Your task to perform on an android device: Open calendar and show me the second week of next month Image 0: 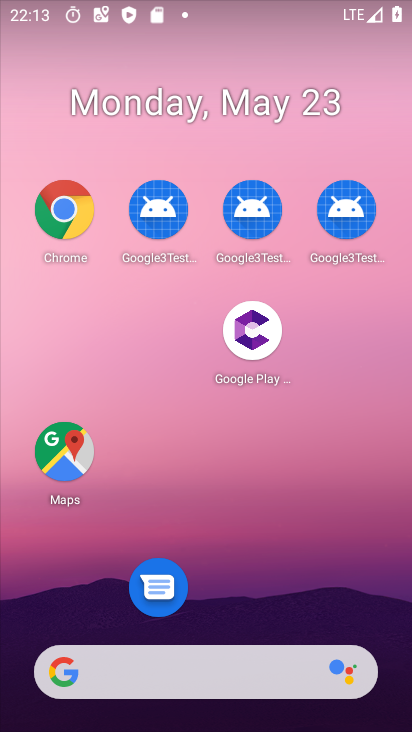
Step 0: click (243, 98)
Your task to perform on an android device: Open calendar and show me the second week of next month Image 1: 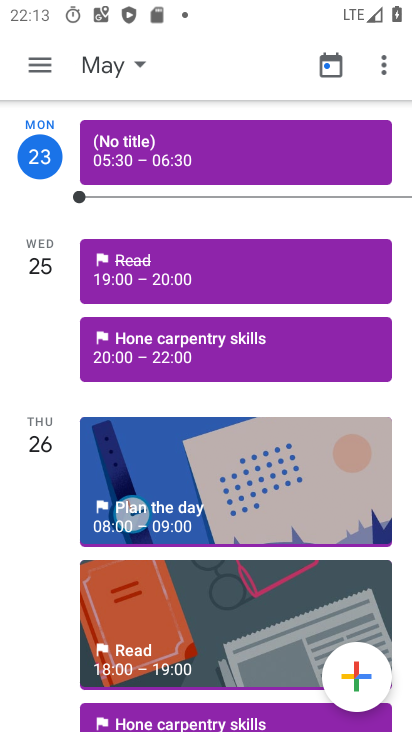
Step 1: click (35, 69)
Your task to perform on an android device: Open calendar and show me the second week of next month Image 2: 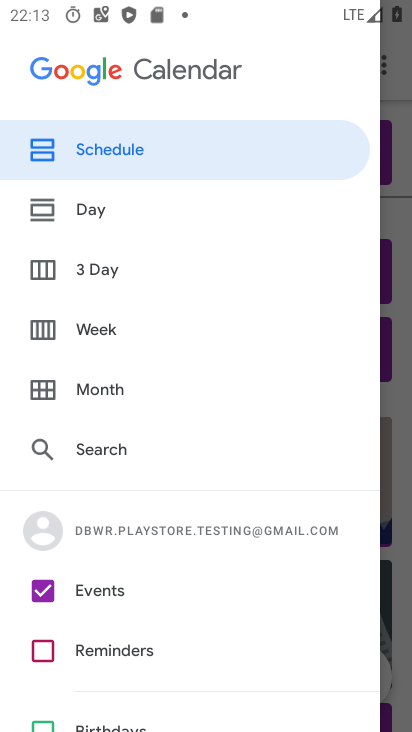
Step 2: click (116, 328)
Your task to perform on an android device: Open calendar and show me the second week of next month Image 3: 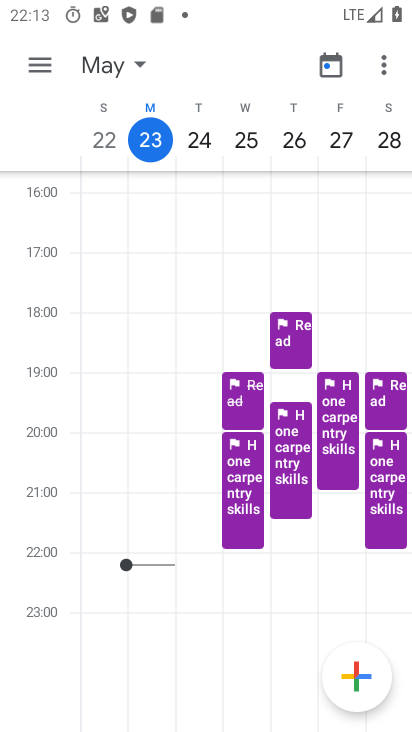
Step 3: click (137, 62)
Your task to perform on an android device: Open calendar and show me the second week of next month Image 4: 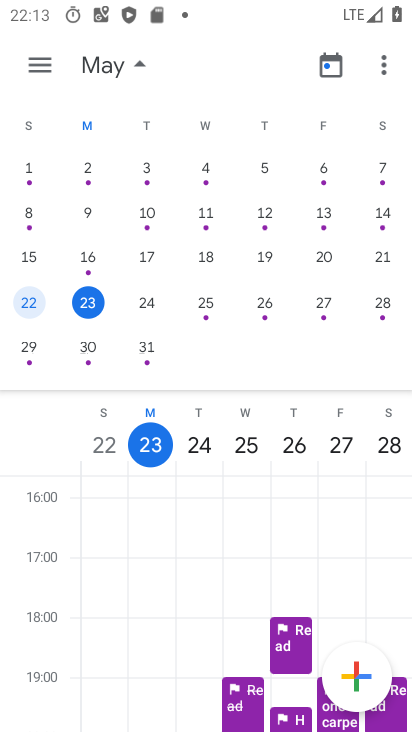
Step 4: drag from (380, 331) to (16, 321)
Your task to perform on an android device: Open calendar and show me the second week of next month Image 5: 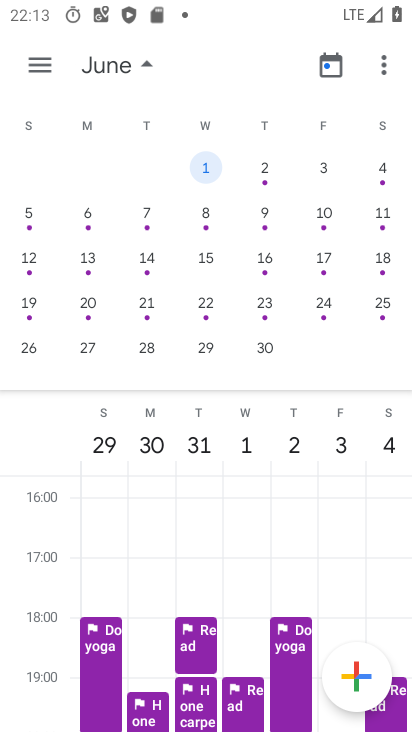
Step 5: click (261, 217)
Your task to perform on an android device: Open calendar and show me the second week of next month Image 6: 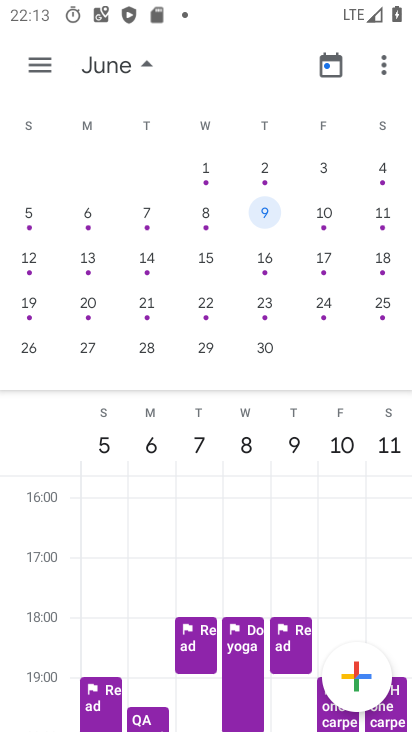
Step 6: task complete